Your task to perform on an android device: turn smart compose on in the gmail app Image 0: 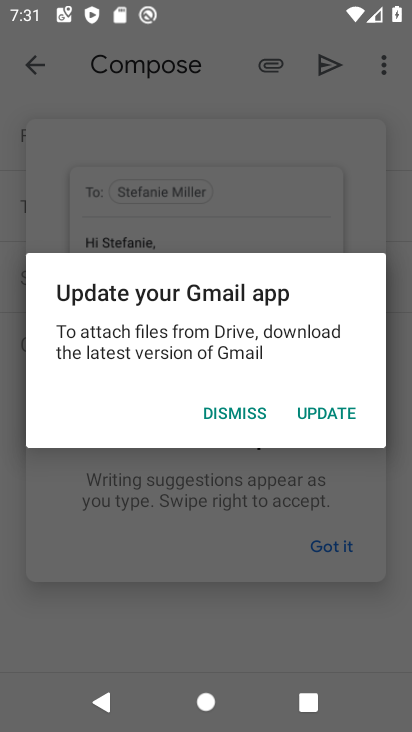
Step 0: press home button
Your task to perform on an android device: turn smart compose on in the gmail app Image 1: 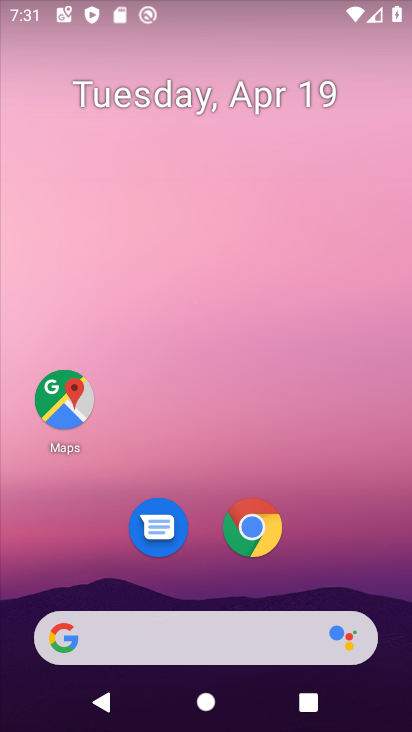
Step 1: drag from (354, 401) to (295, 105)
Your task to perform on an android device: turn smart compose on in the gmail app Image 2: 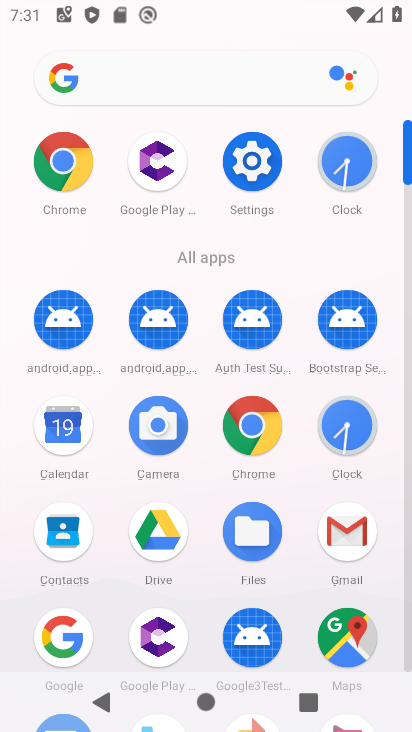
Step 2: drag from (202, 567) to (203, 307)
Your task to perform on an android device: turn smart compose on in the gmail app Image 3: 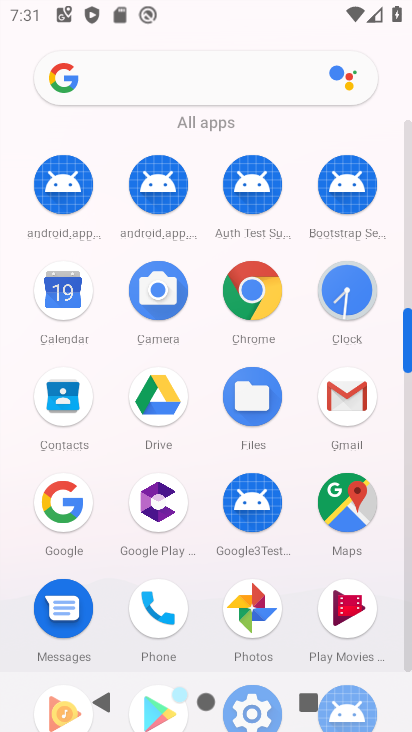
Step 3: click (364, 401)
Your task to perform on an android device: turn smart compose on in the gmail app Image 4: 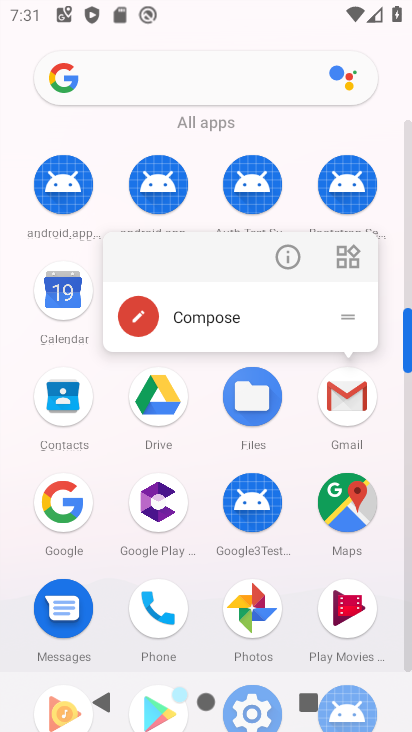
Step 4: click (351, 403)
Your task to perform on an android device: turn smart compose on in the gmail app Image 5: 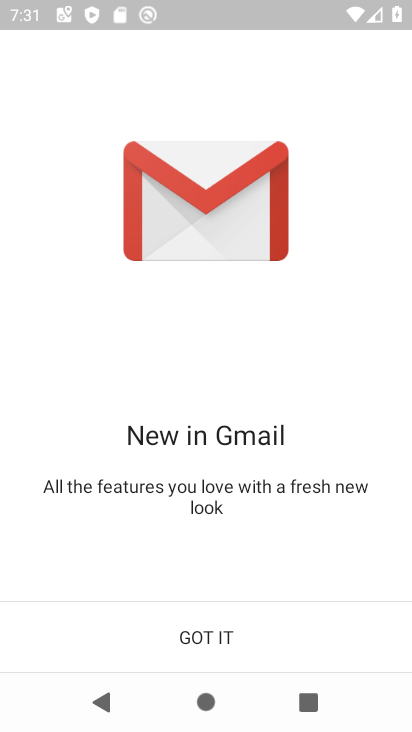
Step 5: click (212, 635)
Your task to perform on an android device: turn smart compose on in the gmail app Image 6: 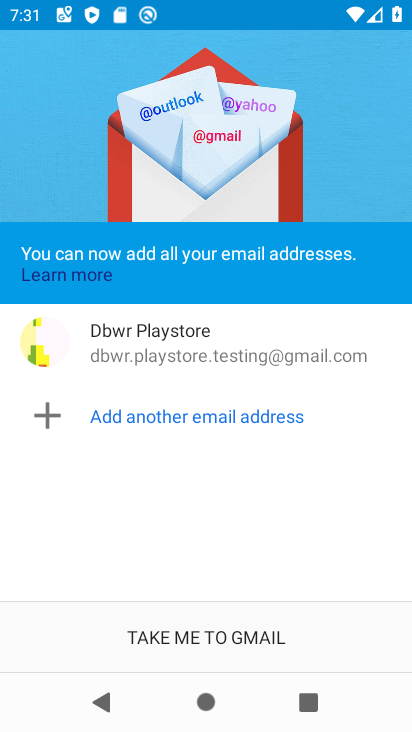
Step 6: click (214, 639)
Your task to perform on an android device: turn smart compose on in the gmail app Image 7: 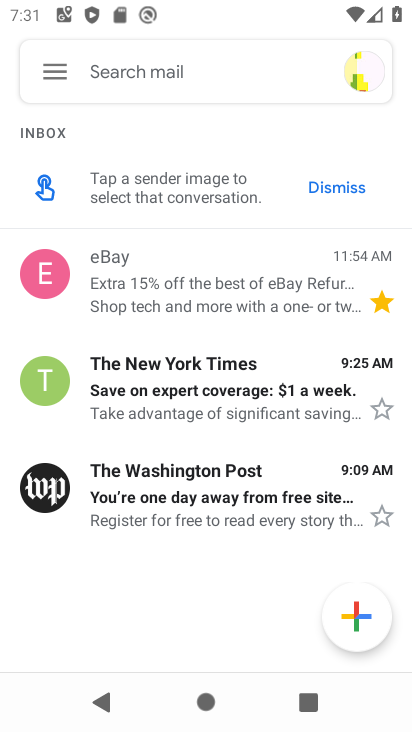
Step 7: click (55, 63)
Your task to perform on an android device: turn smart compose on in the gmail app Image 8: 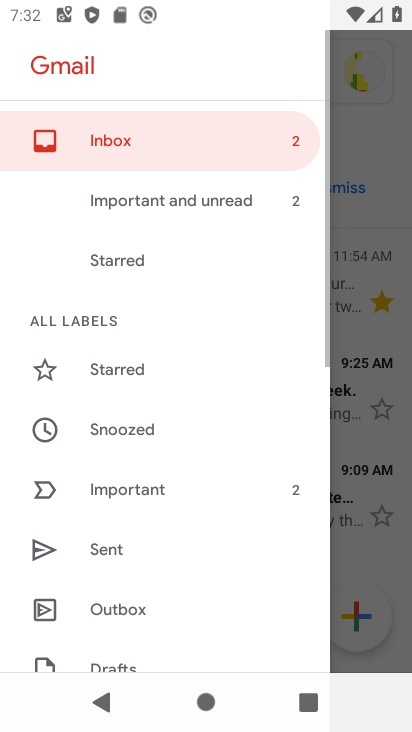
Step 8: drag from (198, 621) to (191, 112)
Your task to perform on an android device: turn smart compose on in the gmail app Image 9: 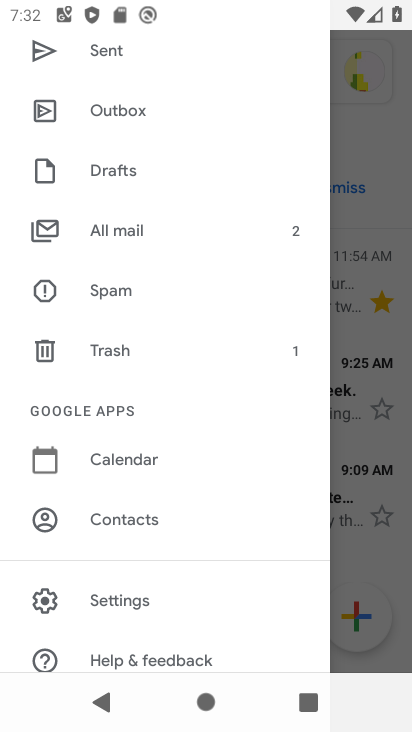
Step 9: click (142, 600)
Your task to perform on an android device: turn smart compose on in the gmail app Image 10: 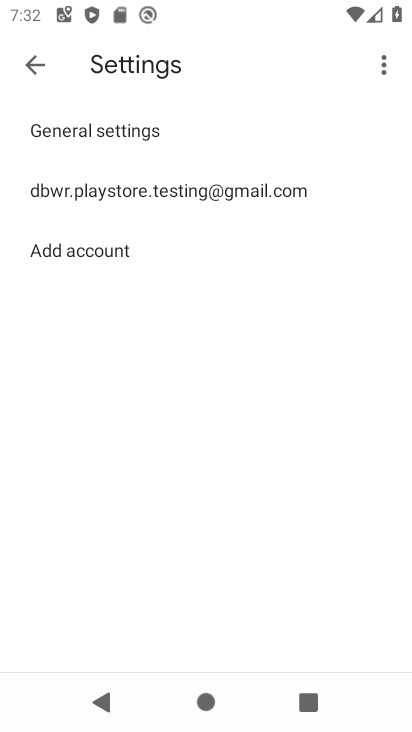
Step 10: click (174, 186)
Your task to perform on an android device: turn smart compose on in the gmail app Image 11: 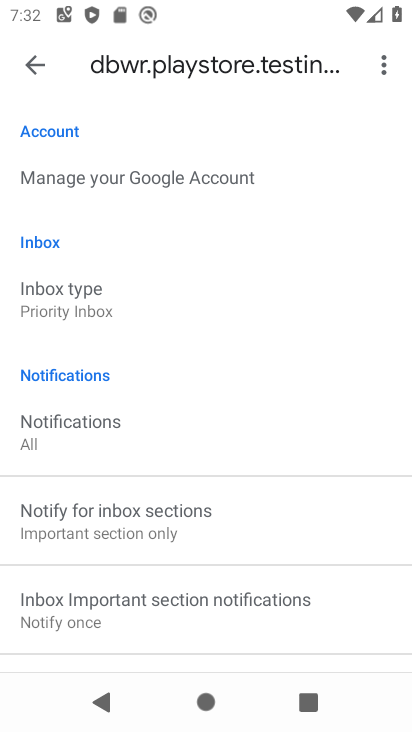
Step 11: task complete